Your task to perform on an android device: choose inbox layout in the gmail app Image 0: 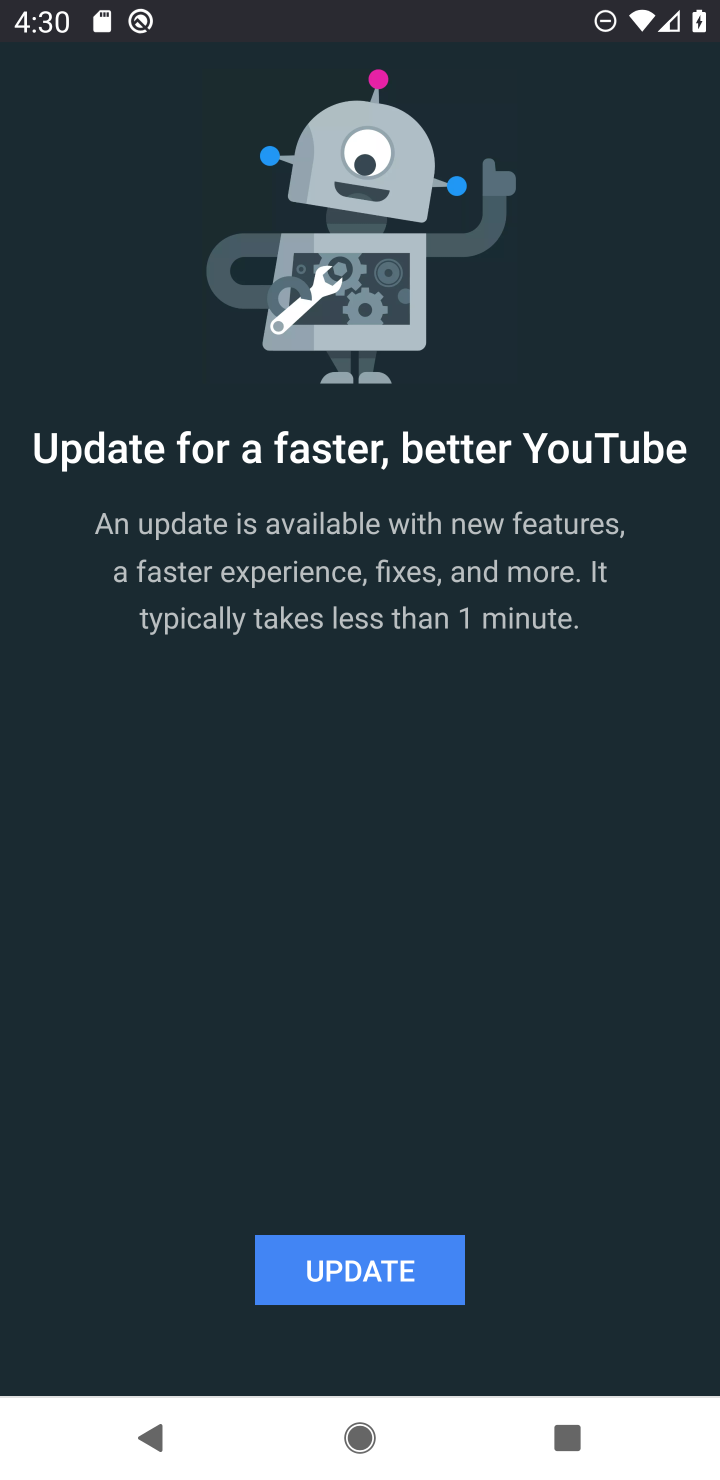
Step 0: press home button
Your task to perform on an android device: choose inbox layout in the gmail app Image 1: 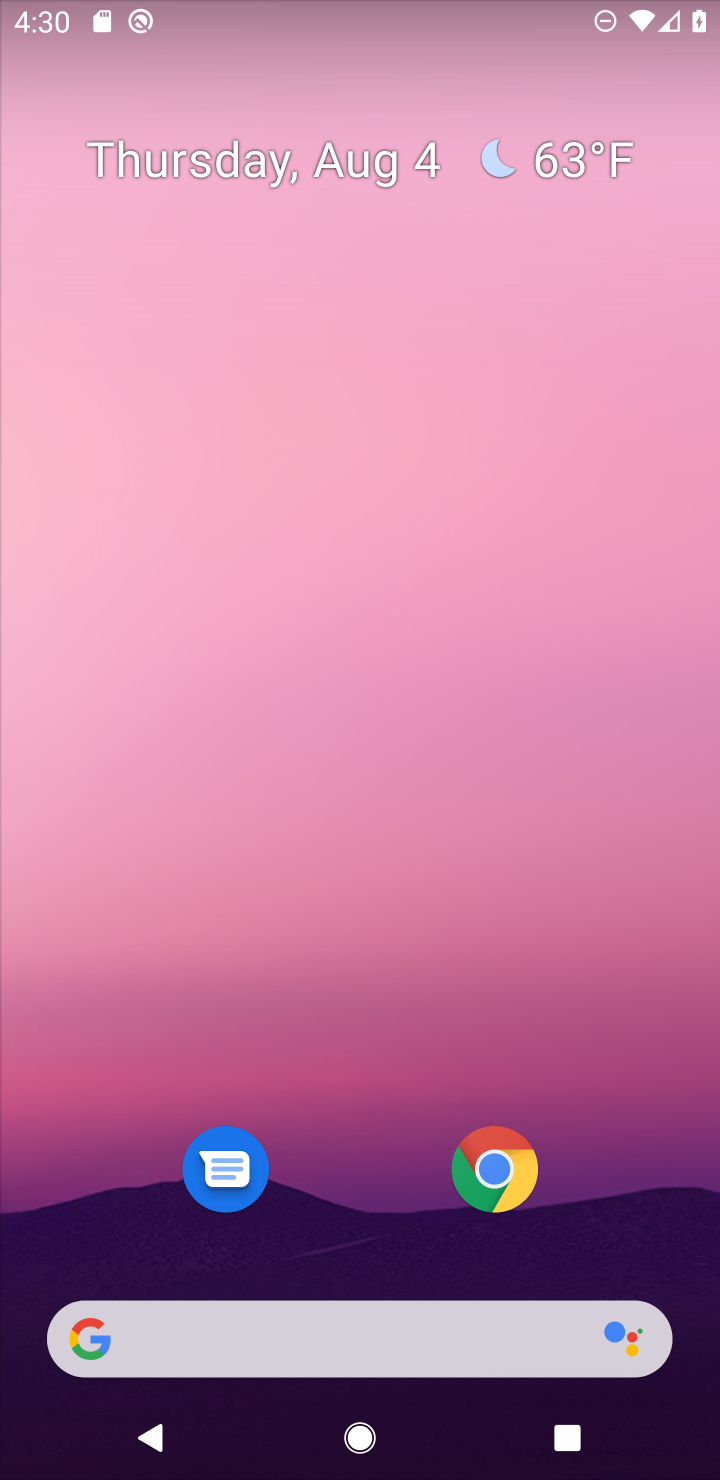
Step 1: drag from (298, 1037) to (285, 97)
Your task to perform on an android device: choose inbox layout in the gmail app Image 2: 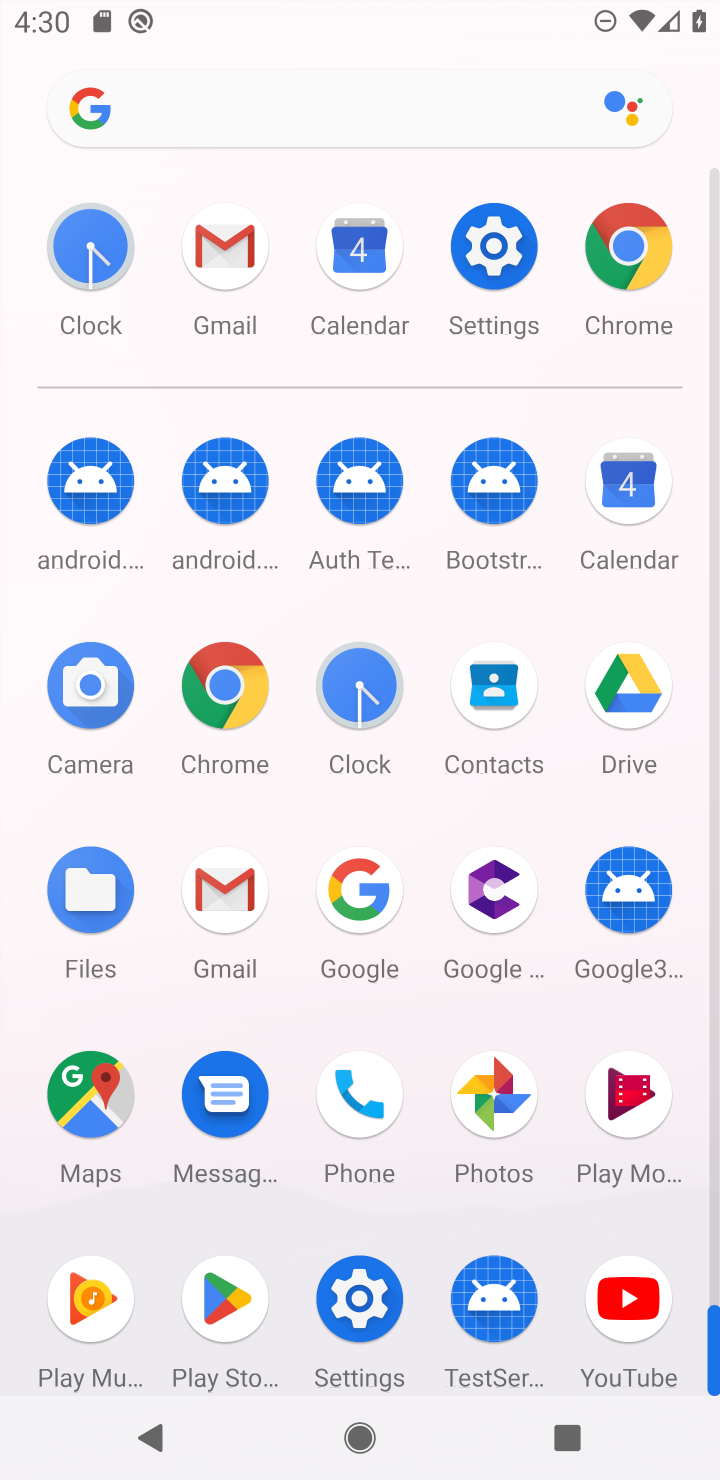
Step 2: click (230, 913)
Your task to perform on an android device: choose inbox layout in the gmail app Image 3: 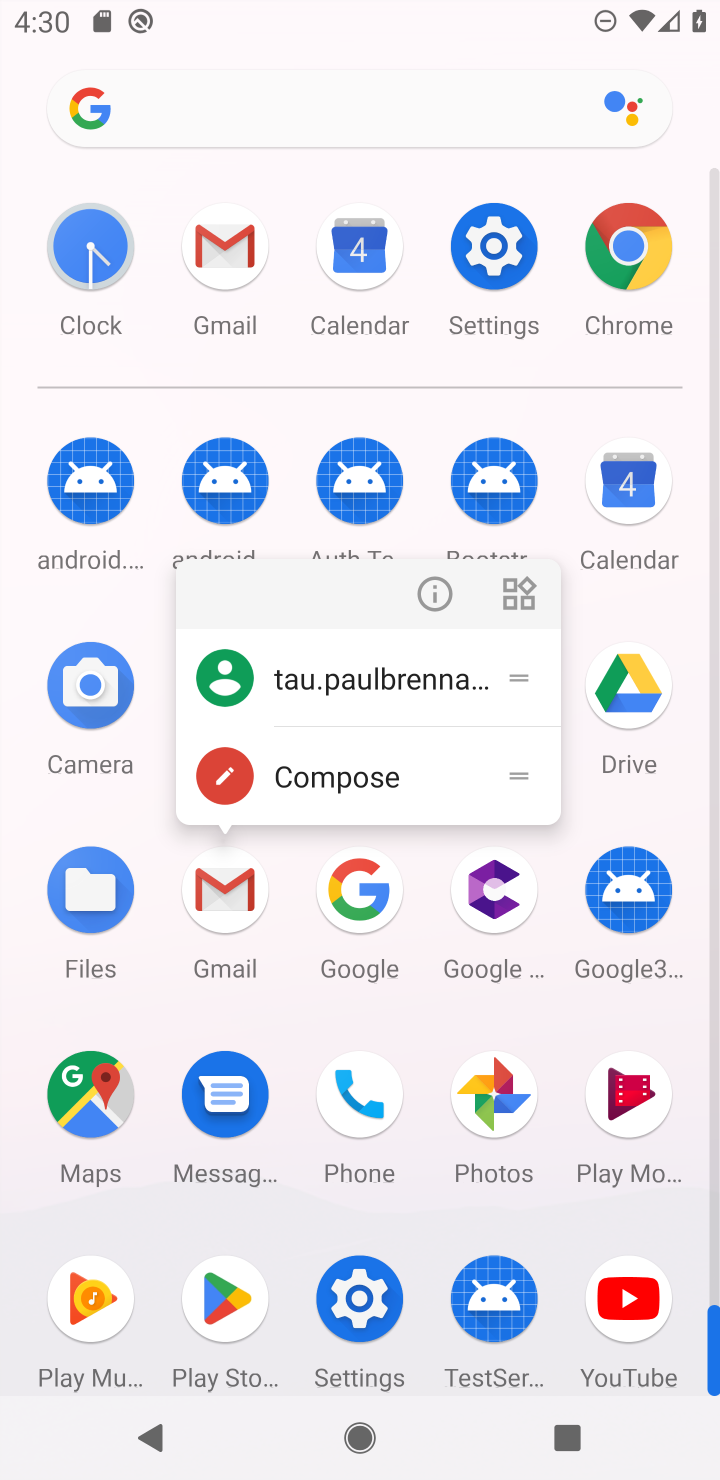
Step 3: click (228, 915)
Your task to perform on an android device: choose inbox layout in the gmail app Image 4: 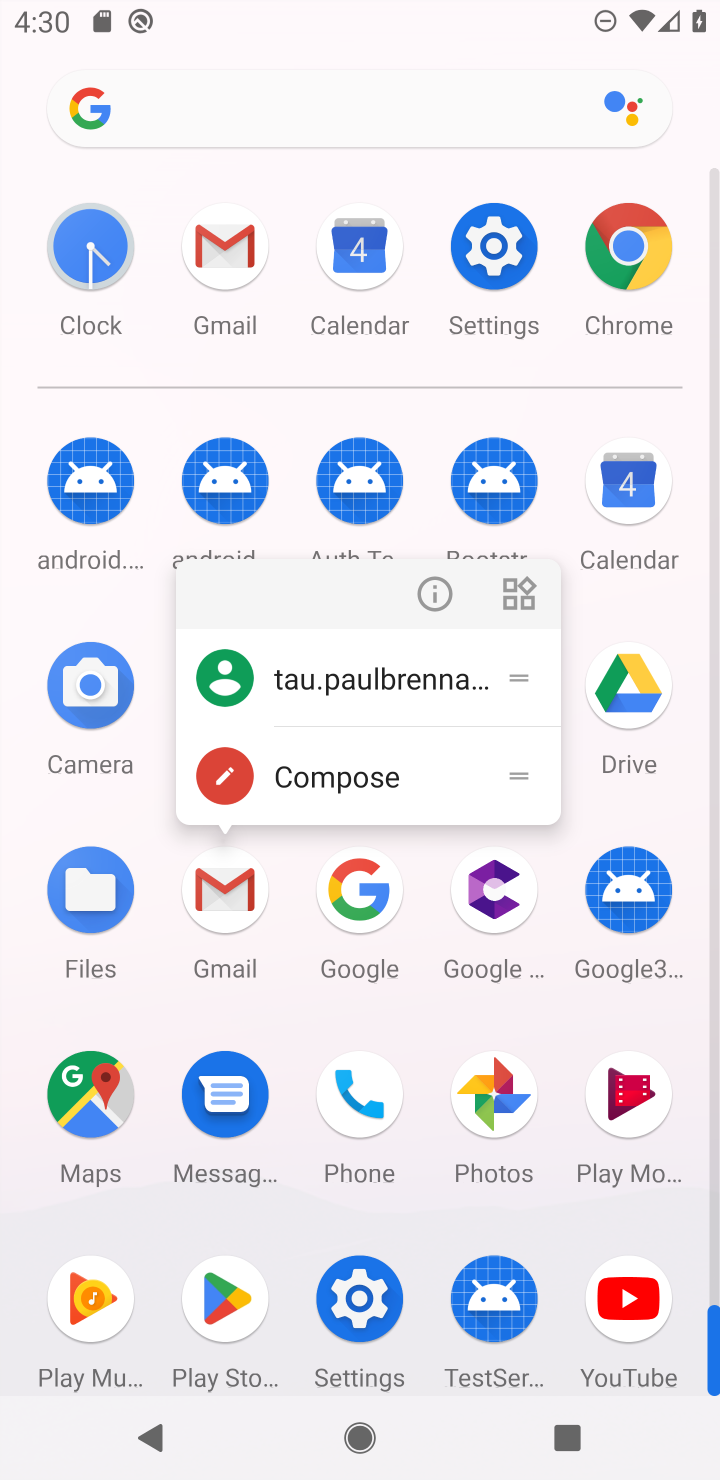
Step 4: click (228, 915)
Your task to perform on an android device: choose inbox layout in the gmail app Image 5: 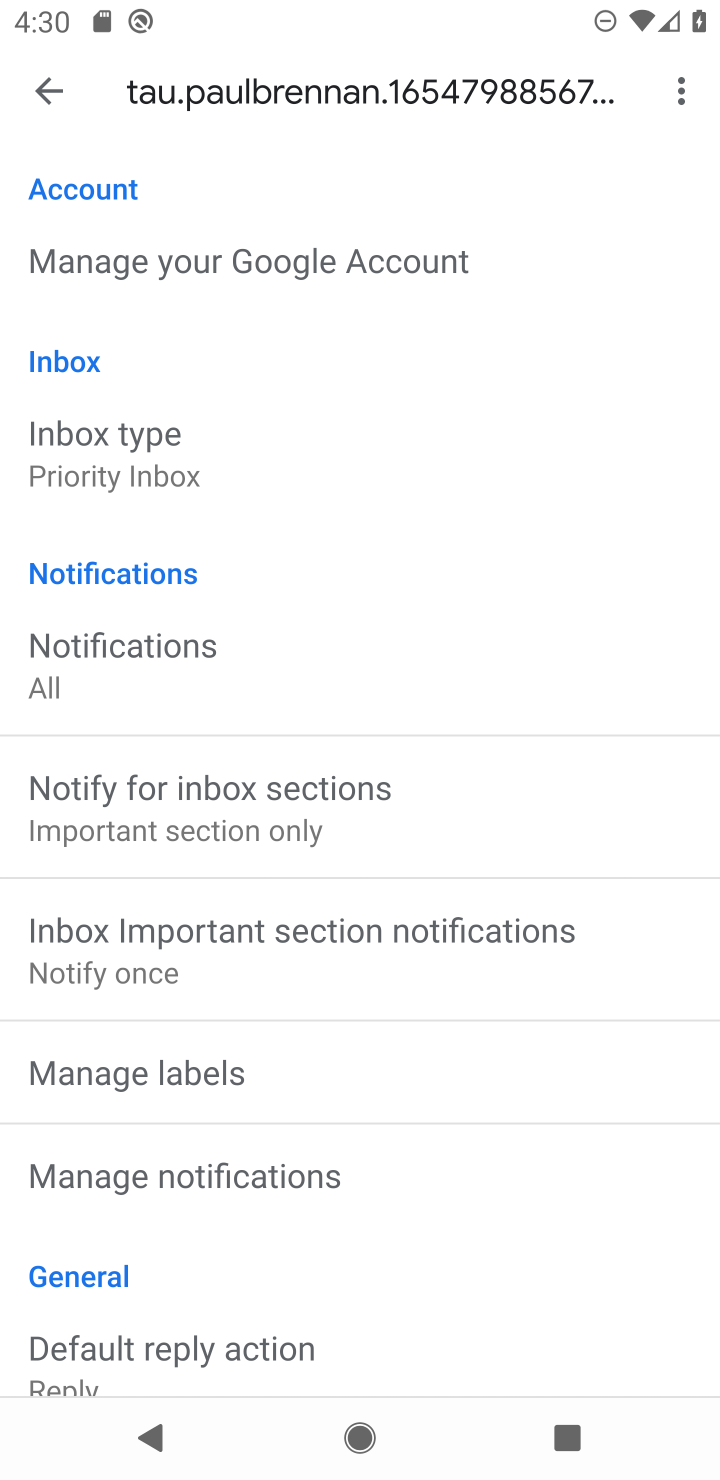
Step 5: click (136, 443)
Your task to perform on an android device: choose inbox layout in the gmail app Image 6: 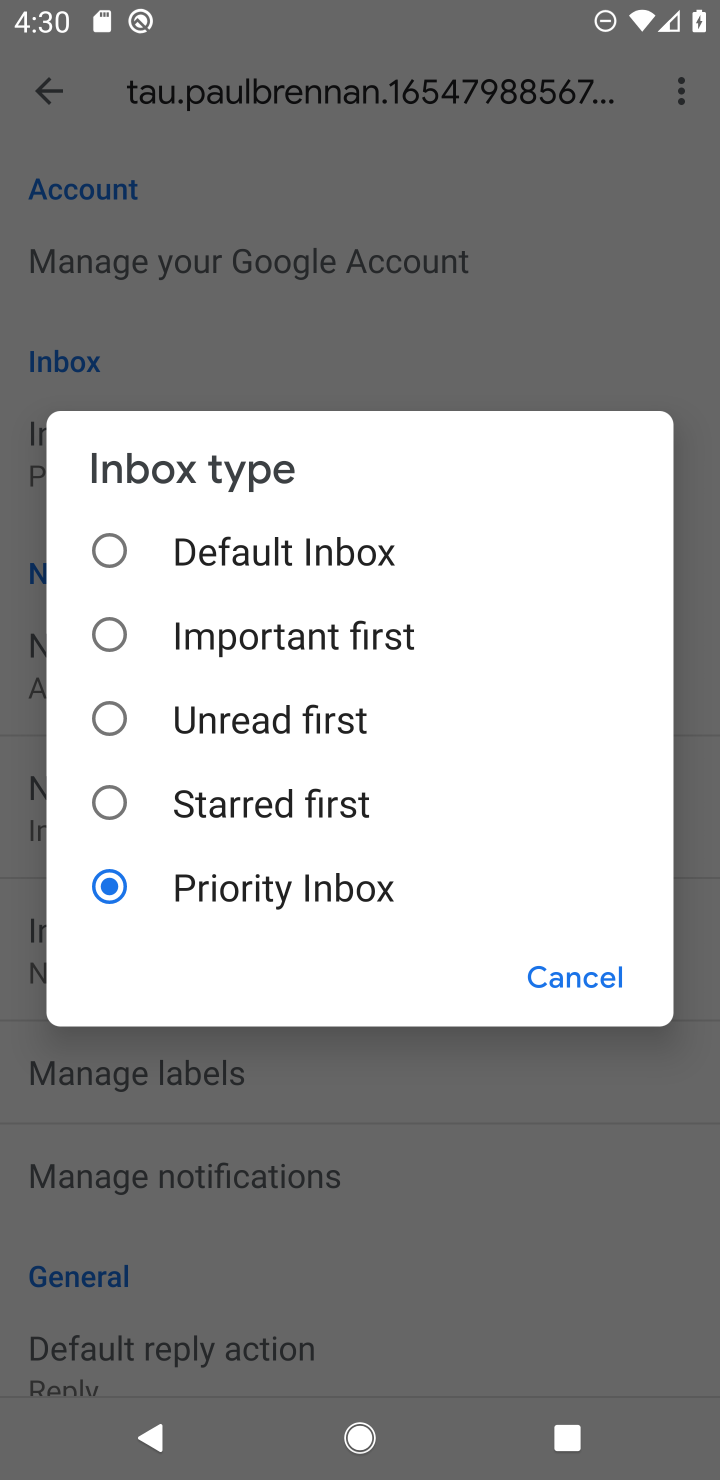
Step 6: click (296, 543)
Your task to perform on an android device: choose inbox layout in the gmail app Image 7: 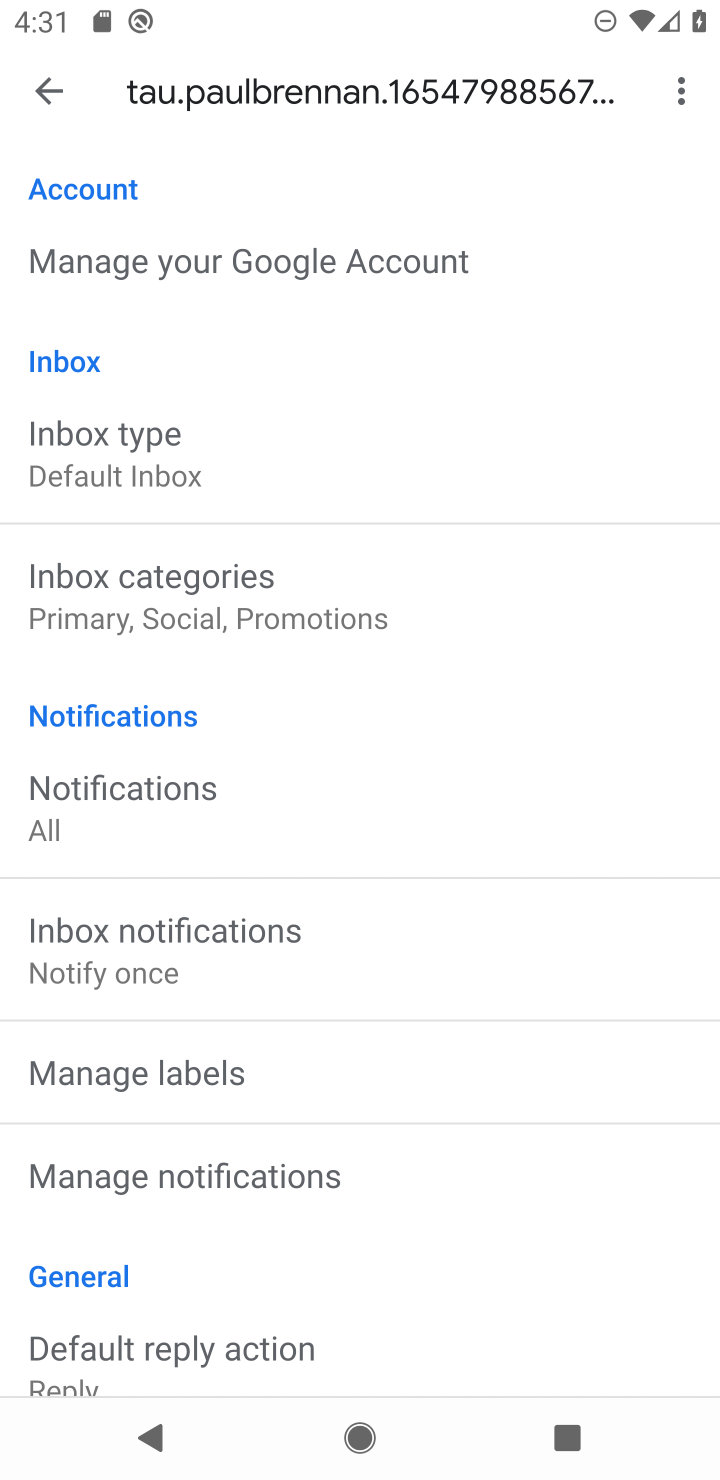
Step 7: task complete